Your task to perform on an android device: Turn on the flashlight Image 0: 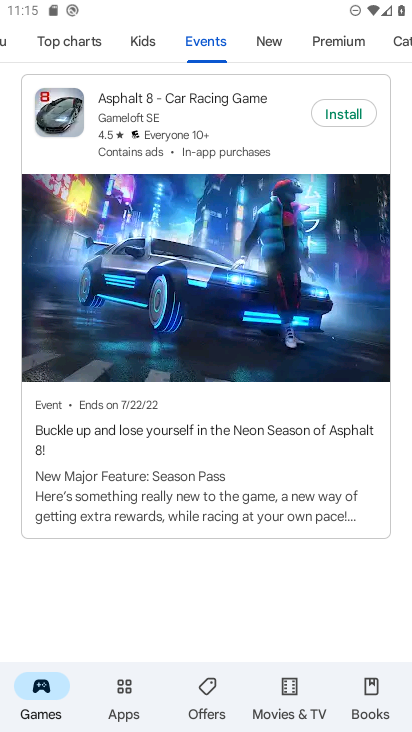
Step 0: press home button
Your task to perform on an android device: Turn on the flashlight Image 1: 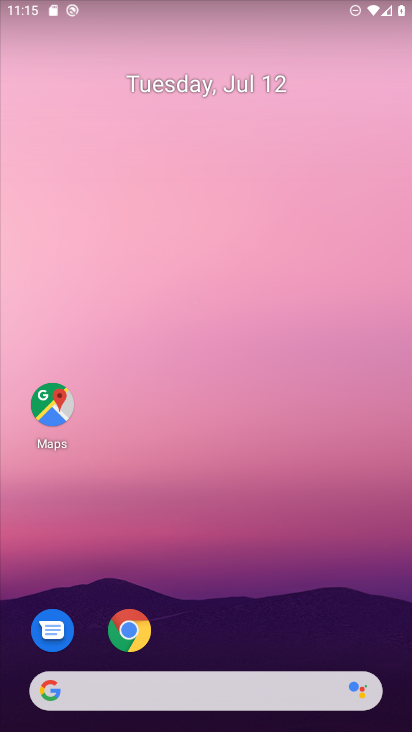
Step 1: drag from (382, 639) to (286, 148)
Your task to perform on an android device: Turn on the flashlight Image 2: 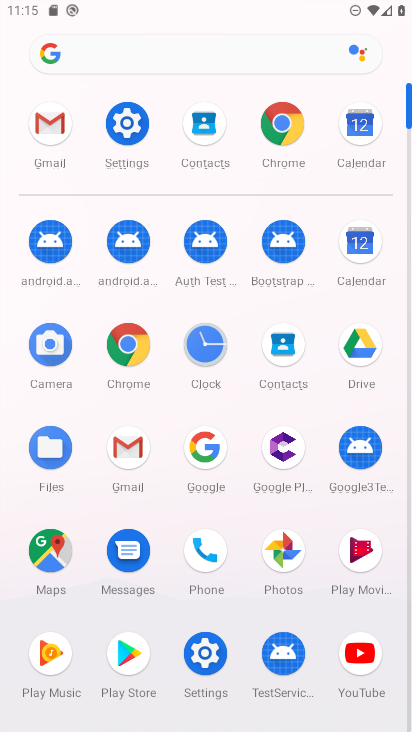
Step 2: click (132, 127)
Your task to perform on an android device: Turn on the flashlight Image 3: 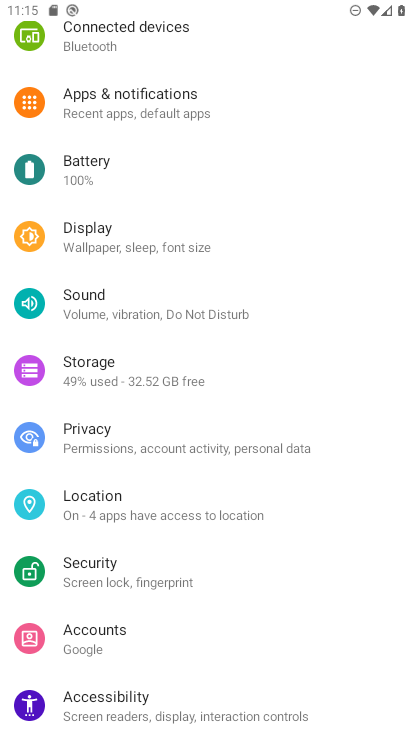
Step 3: click (171, 257)
Your task to perform on an android device: Turn on the flashlight Image 4: 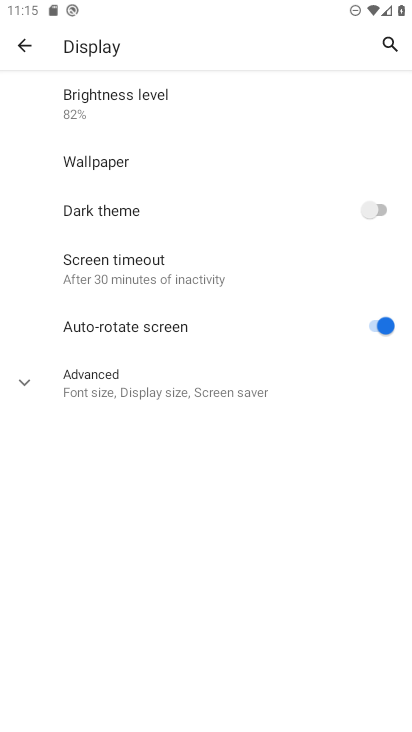
Step 4: task complete